Your task to perform on an android device: change your default location settings in chrome Image 0: 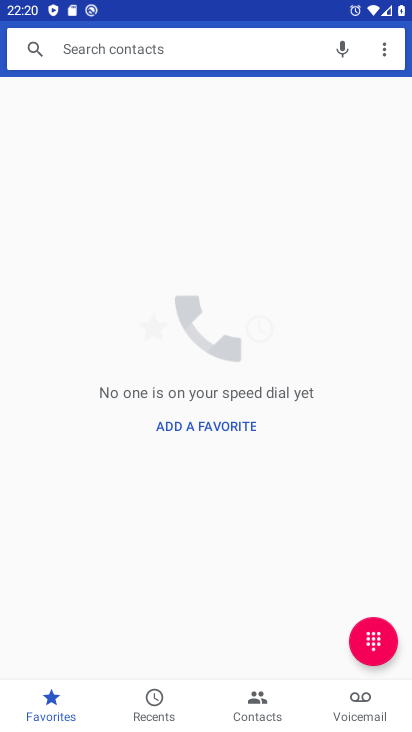
Step 0: press home button
Your task to perform on an android device: change your default location settings in chrome Image 1: 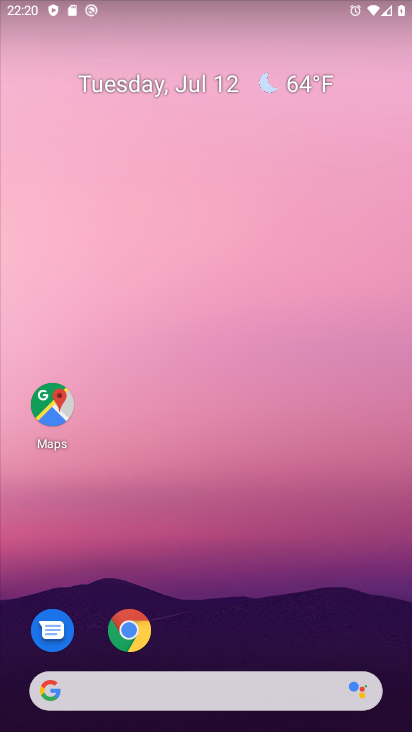
Step 1: drag from (206, 657) to (359, 3)
Your task to perform on an android device: change your default location settings in chrome Image 2: 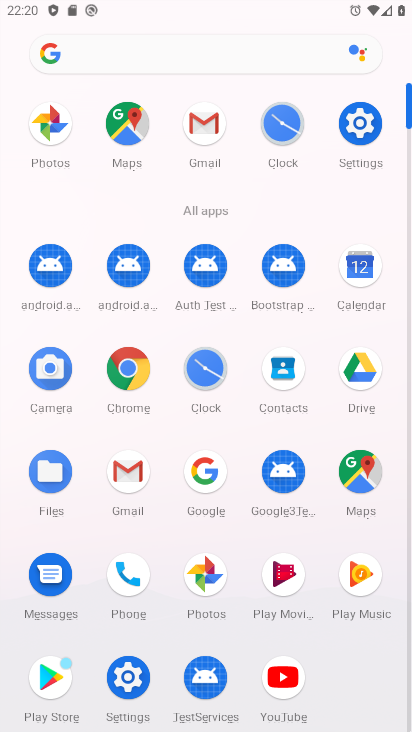
Step 2: click (123, 383)
Your task to perform on an android device: change your default location settings in chrome Image 3: 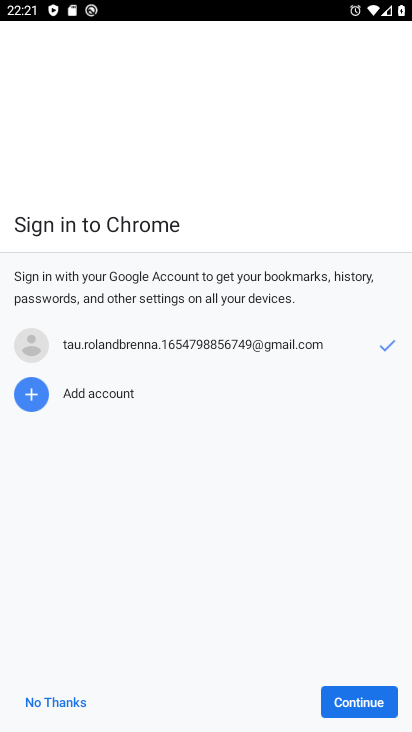
Step 3: click (361, 712)
Your task to perform on an android device: change your default location settings in chrome Image 4: 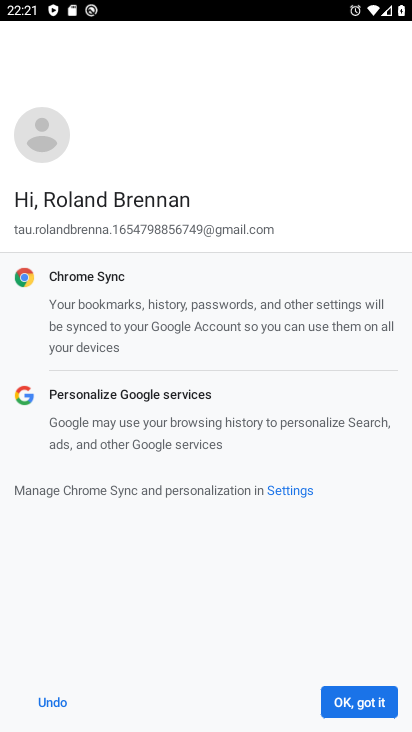
Step 4: click (377, 695)
Your task to perform on an android device: change your default location settings in chrome Image 5: 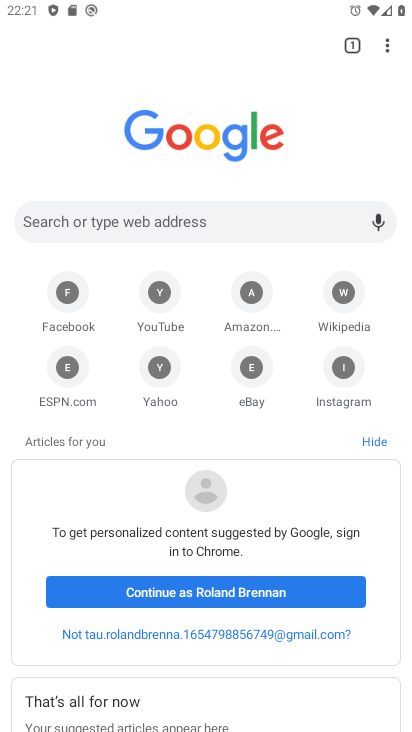
Step 5: drag from (385, 42) to (221, 388)
Your task to perform on an android device: change your default location settings in chrome Image 6: 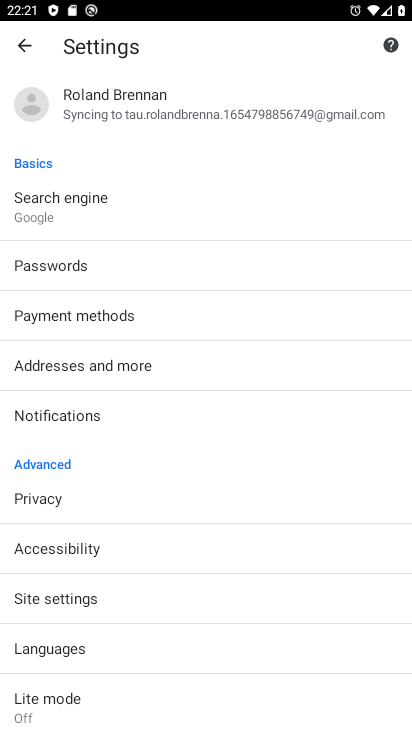
Step 6: click (80, 591)
Your task to perform on an android device: change your default location settings in chrome Image 7: 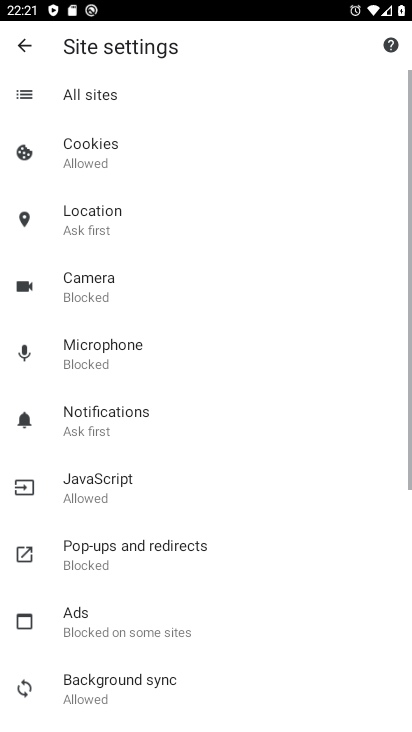
Step 7: click (104, 218)
Your task to perform on an android device: change your default location settings in chrome Image 8: 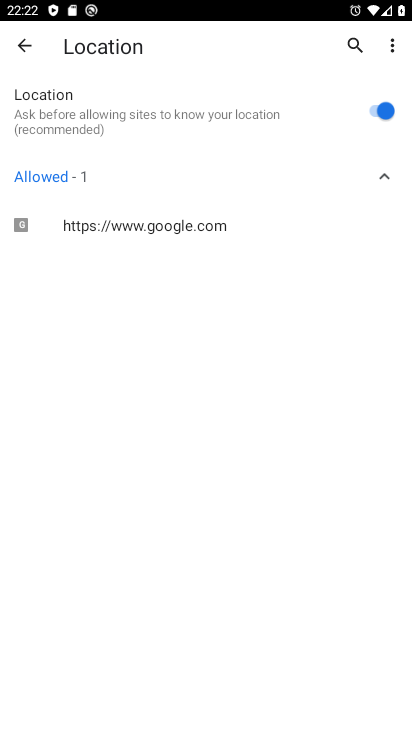
Step 8: click (366, 102)
Your task to perform on an android device: change your default location settings in chrome Image 9: 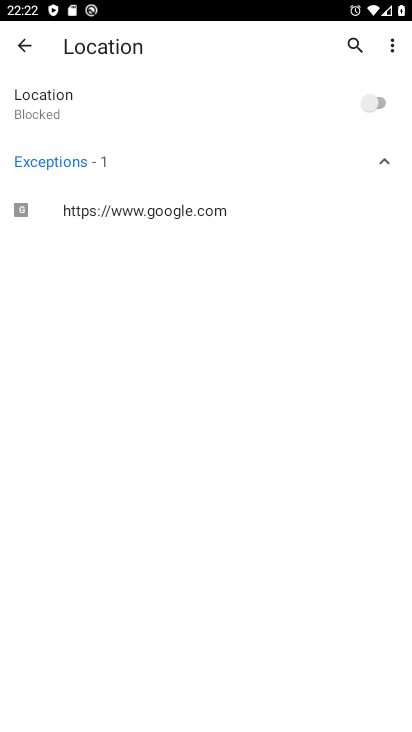
Step 9: task complete